Your task to perform on an android device: Open Yahoo.com Image 0: 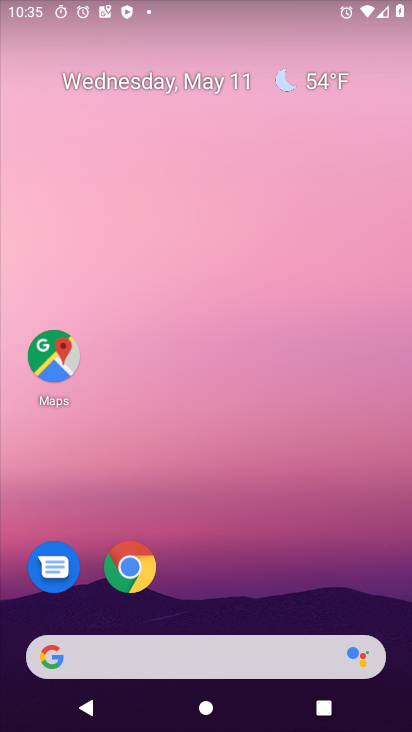
Step 0: click (124, 564)
Your task to perform on an android device: Open Yahoo.com Image 1: 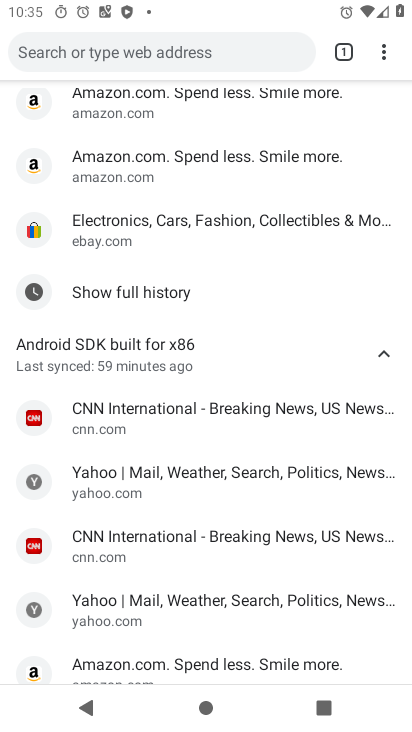
Step 1: click (178, 65)
Your task to perform on an android device: Open Yahoo.com Image 2: 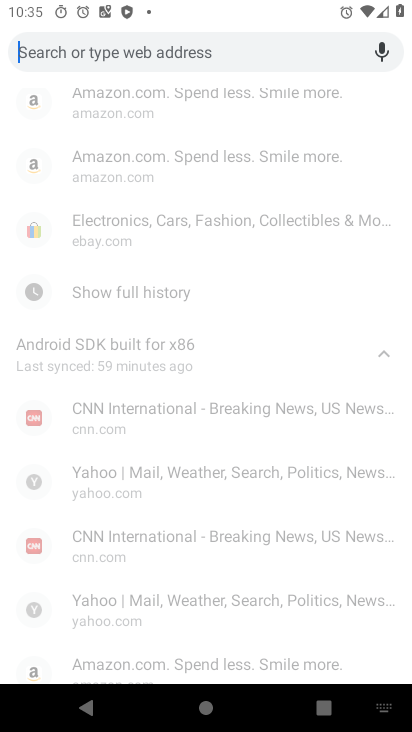
Step 2: type "yahoo.com"
Your task to perform on an android device: Open Yahoo.com Image 3: 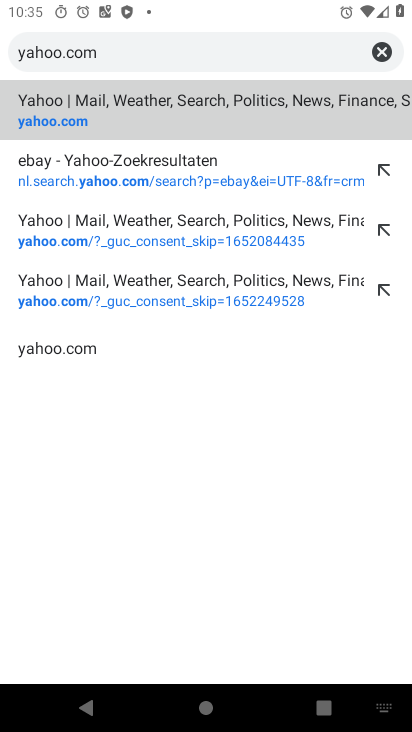
Step 3: click (85, 116)
Your task to perform on an android device: Open Yahoo.com Image 4: 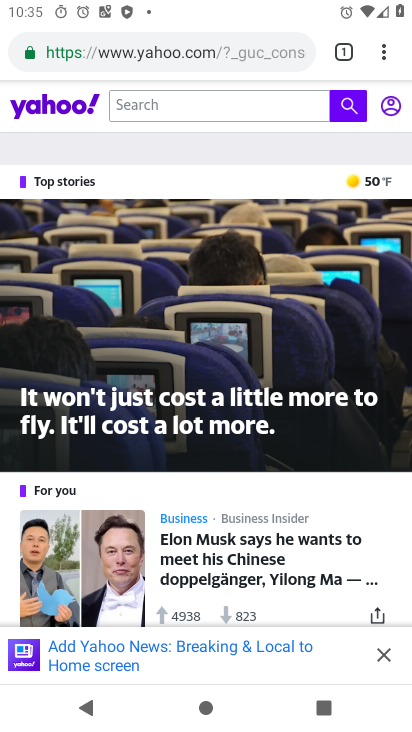
Step 4: task complete